Your task to perform on an android device: Clear all items from cart on newegg.com. Image 0: 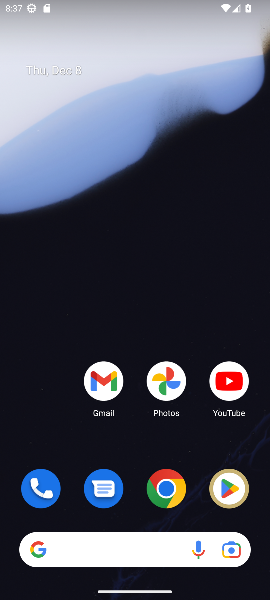
Step 0: drag from (137, 537) to (175, 203)
Your task to perform on an android device: Clear all items from cart on newegg.com. Image 1: 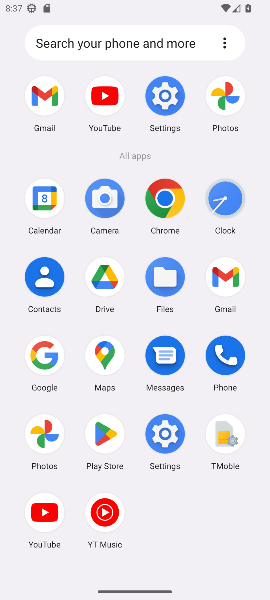
Step 1: click (46, 350)
Your task to perform on an android device: Clear all items from cart on newegg.com. Image 2: 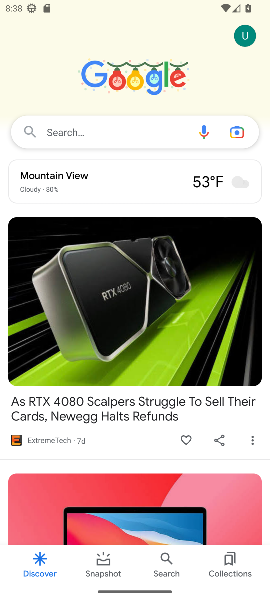
Step 2: click (143, 122)
Your task to perform on an android device: Clear all items from cart on newegg.com. Image 3: 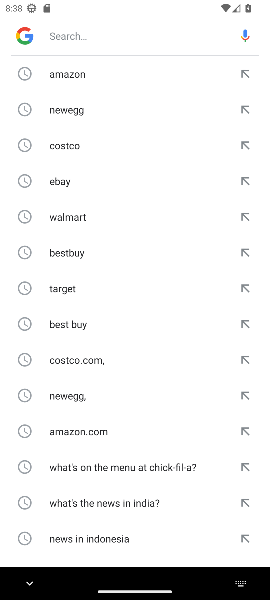
Step 3: click (248, 105)
Your task to perform on an android device: Clear all items from cart on newegg.com. Image 4: 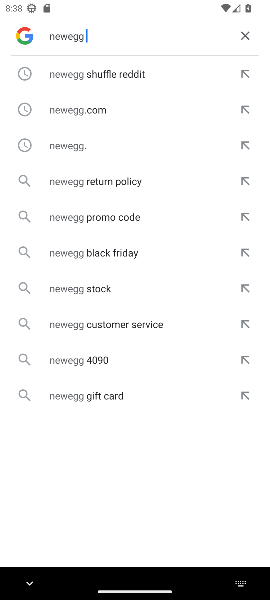
Step 4: click (74, 106)
Your task to perform on an android device: Clear all items from cart on newegg.com. Image 5: 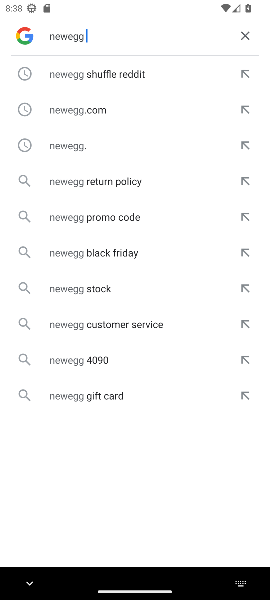
Step 5: click (77, 108)
Your task to perform on an android device: Clear all items from cart on newegg.com. Image 6: 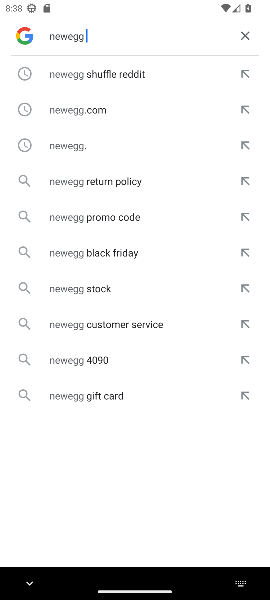
Step 6: click (77, 108)
Your task to perform on an android device: Clear all items from cart on newegg.com. Image 7: 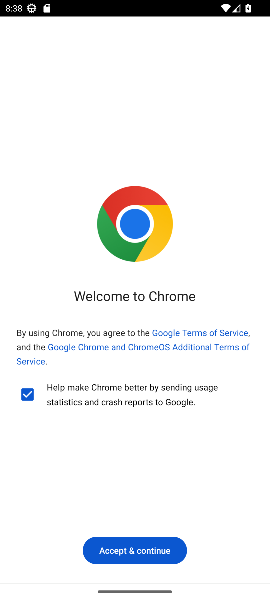
Step 7: click (138, 553)
Your task to perform on an android device: Clear all items from cart on newegg.com. Image 8: 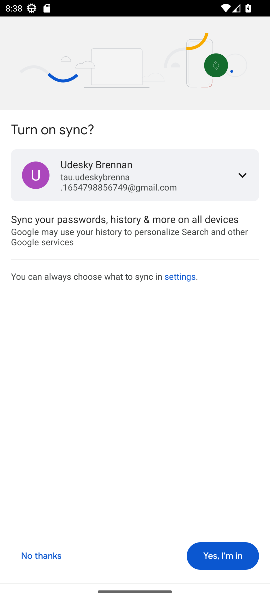
Step 8: click (235, 562)
Your task to perform on an android device: Clear all items from cart on newegg.com. Image 9: 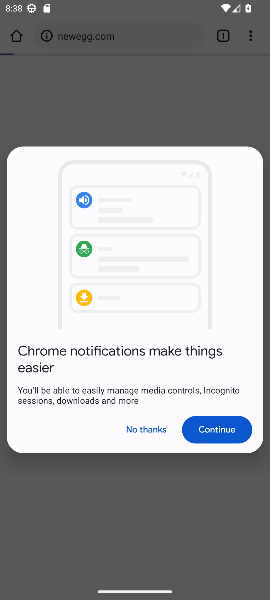
Step 9: click (146, 433)
Your task to perform on an android device: Clear all items from cart on newegg.com. Image 10: 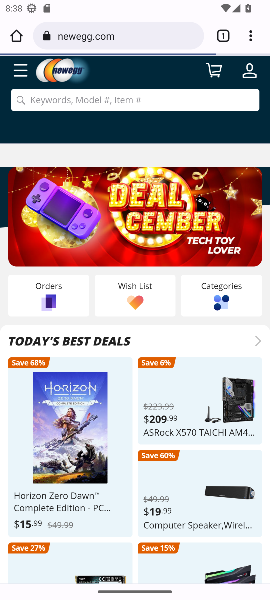
Step 10: click (44, 98)
Your task to perform on an android device: Clear all items from cart on newegg.com. Image 11: 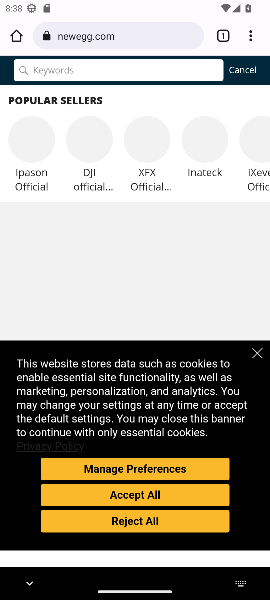
Step 11: click (249, 74)
Your task to perform on an android device: Clear all items from cart on newegg.com. Image 12: 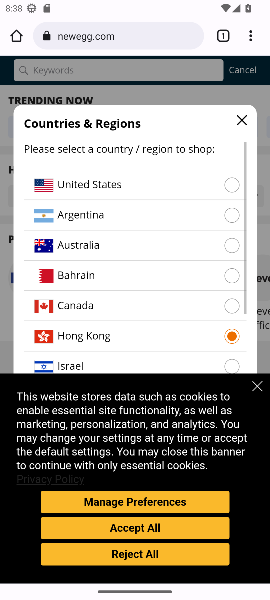
Step 12: click (241, 117)
Your task to perform on an android device: Clear all items from cart on newegg.com. Image 13: 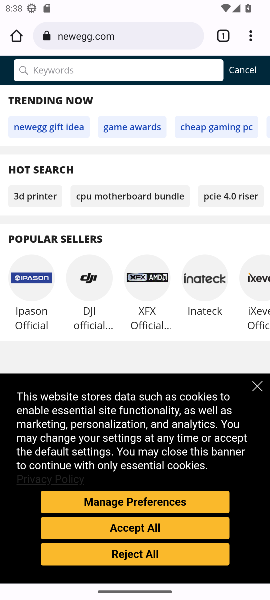
Step 13: click (259, 391)
Your task to perform on an android device: Clear all items from cart on newegg.com. Image 14: 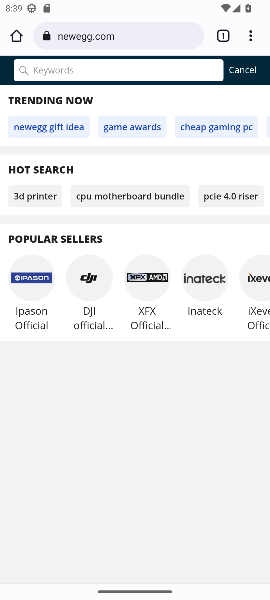
Step 14: task complete